Your task to perform on an android device: check data usage Image 0: 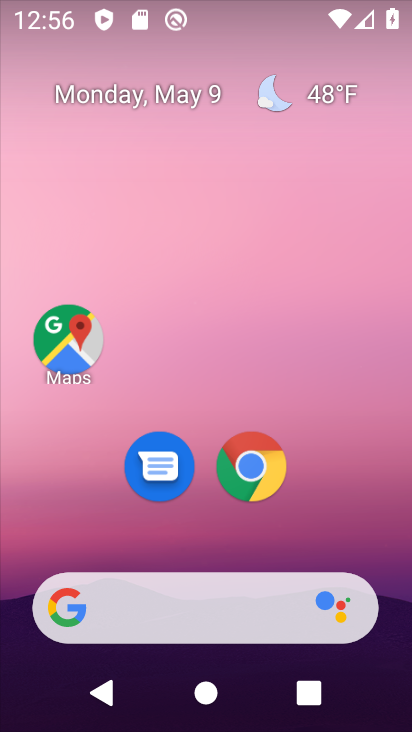
Step 0: drag from (250, 543) to (234, 214)
Your task to perform on an android device: check data usage Image 1: 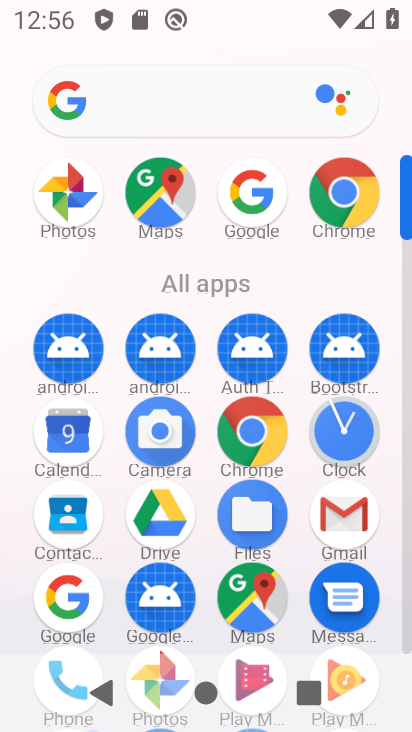
Step 1: drag from (200, 551) to (200, 260)
Your task to perform on an android device: check data usage Image 2: 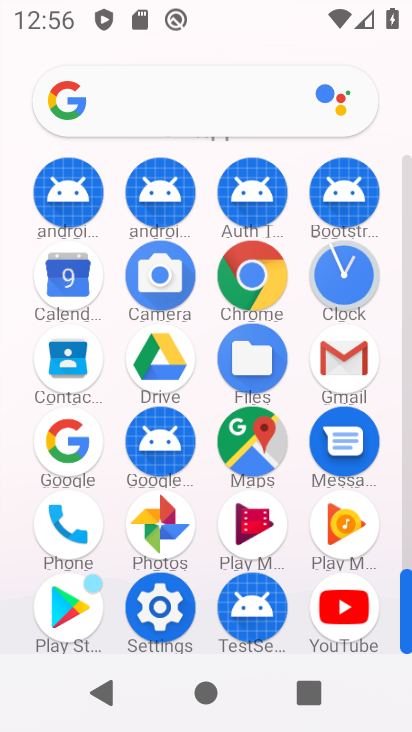
Step 2: click (153, 600)
Your task to perform on an android device: check data usage Image 3: 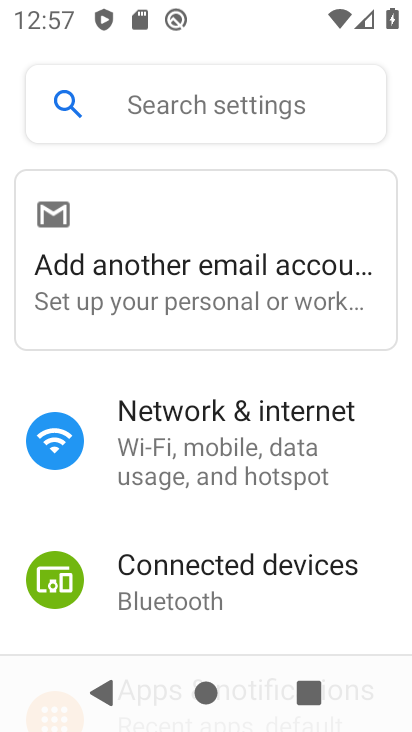
Step 3: drag from (190, 541) to (222, 283)
Your task to perform on an android device: check data usage Image 4: 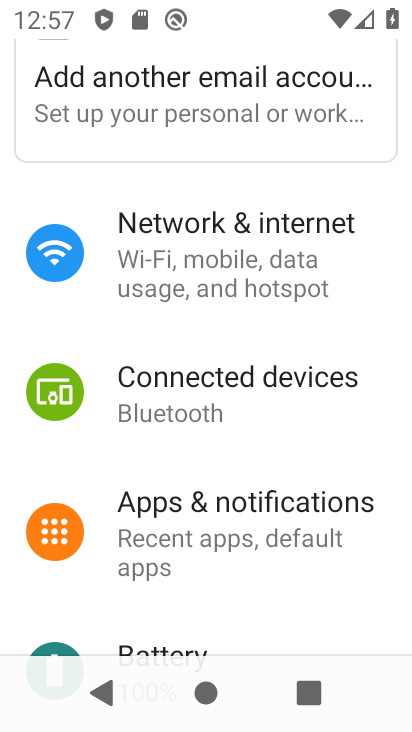
Step 4: click (217, 308)
Your task to perform on an android device: check data usage Image 5: 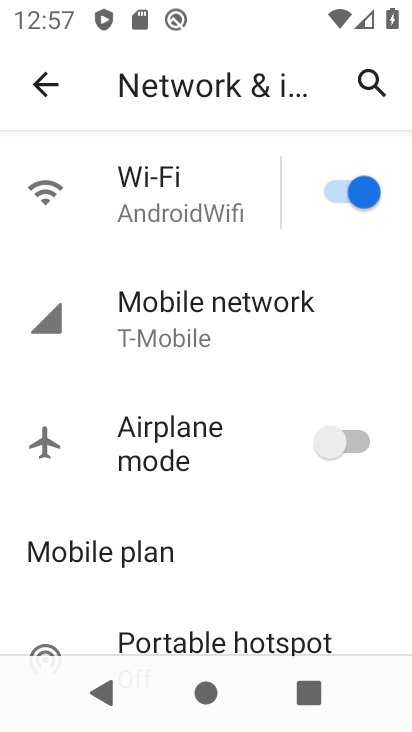
Step 5: click (160, 261)
Your task to perform on an android device: check data usage Image 6: 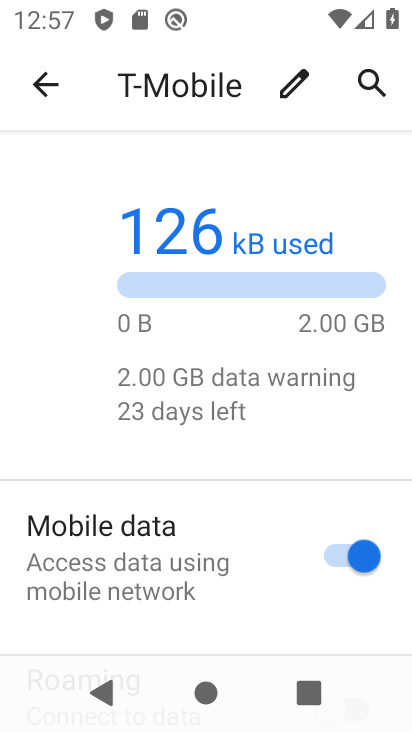
Step 6: drag from (184, 538) to (205, 234)
Your task to perform on an android device: check data usage Image 7: 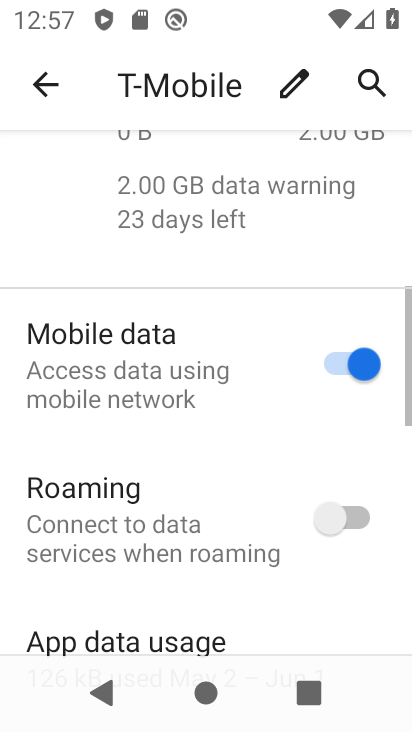
Step 7: drag from (200, 496) to (216, 296)
Your task to perform on an android device: check data usage Image 8: 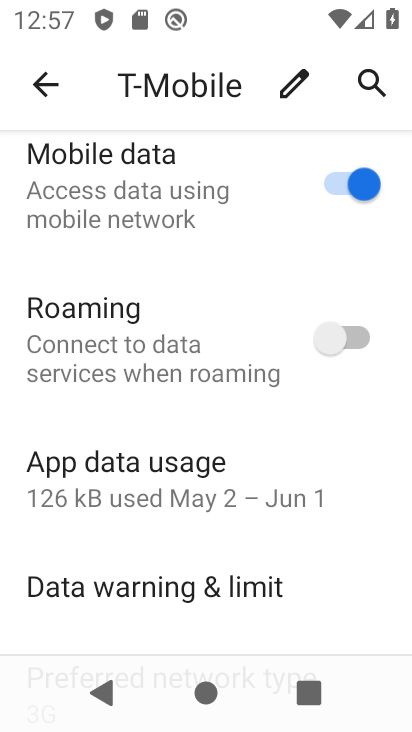
Step 8: click (219, 503)
Your task to perform on an android device: check data usage Image 9: 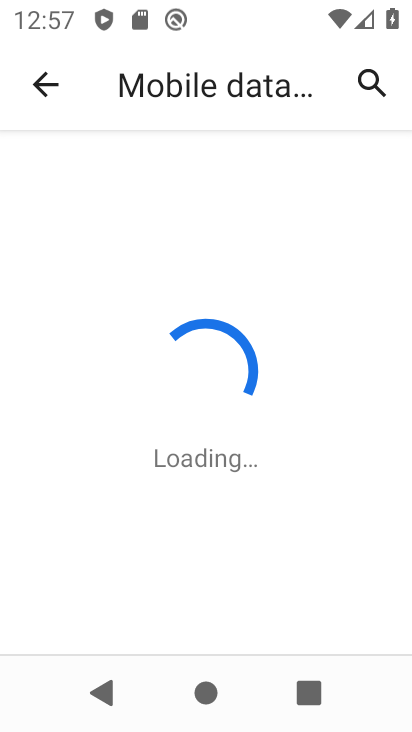
Step 9: task complete